Your task to perform on an android device: Is it going to rain today? Image 0: 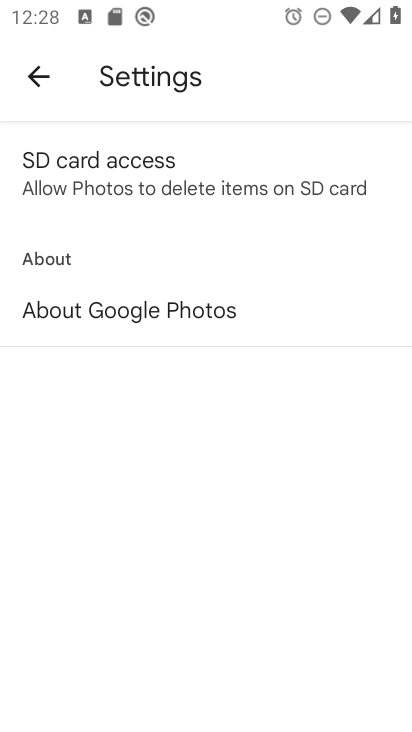
Step 0: press home button
Your task to perform on an android device: Is it going to rain today? Image 1: 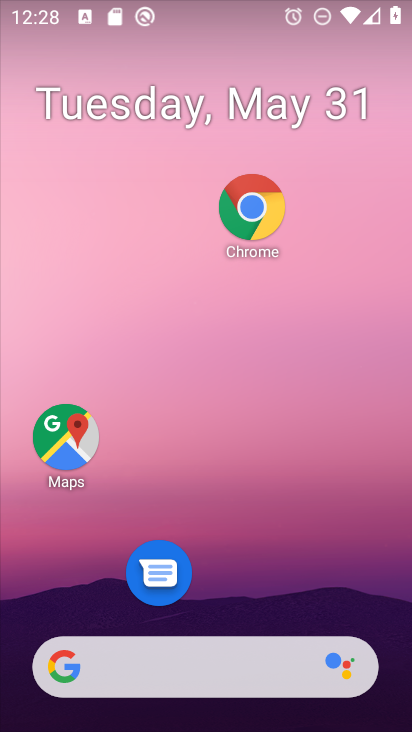
Step 1: drag from (237, 660) to (272, 70)
Your task to perform on an android device: Is it going to rain today? Image 2: 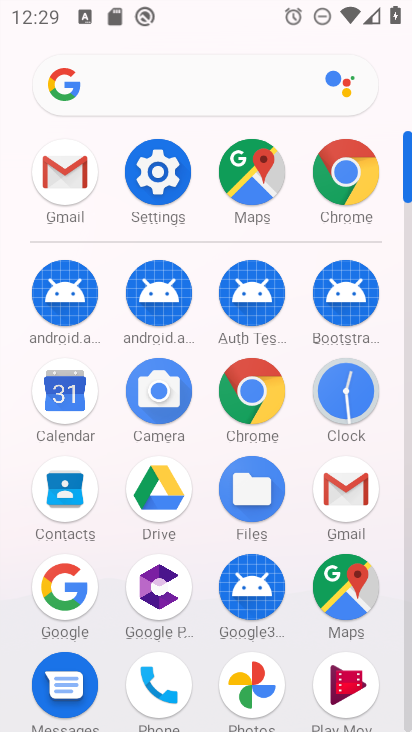
Step 2: click (87, 596)
Your task to perform on an android device: Is it going to rain today? Image 3: 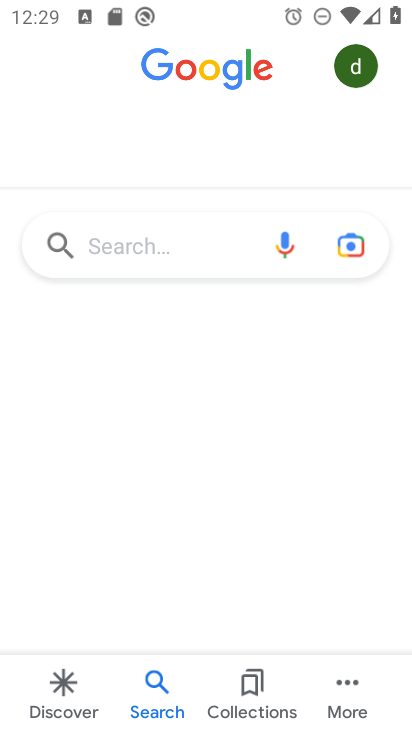
Step 3: click (211, 248)
Your task to perform on an android device: Is it going to rain today? Image 4: 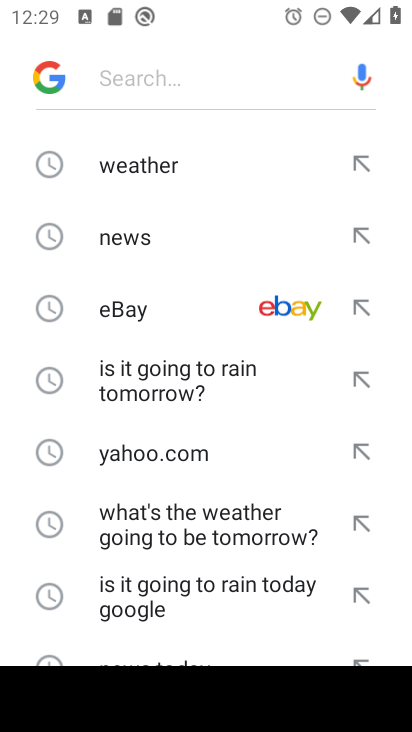
Step 4: click (184, 161)
Your task to perform on an android device: Is it going to rain today? Image 5: 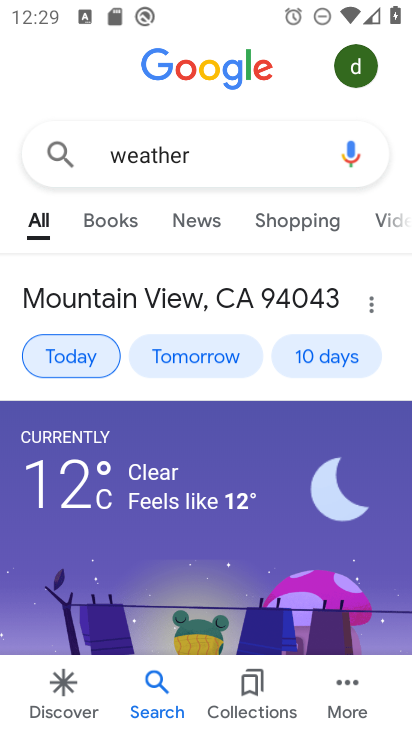
Step 5: task complete